Your task to perform on an android device: check the backup settings in the google photos Image 0: 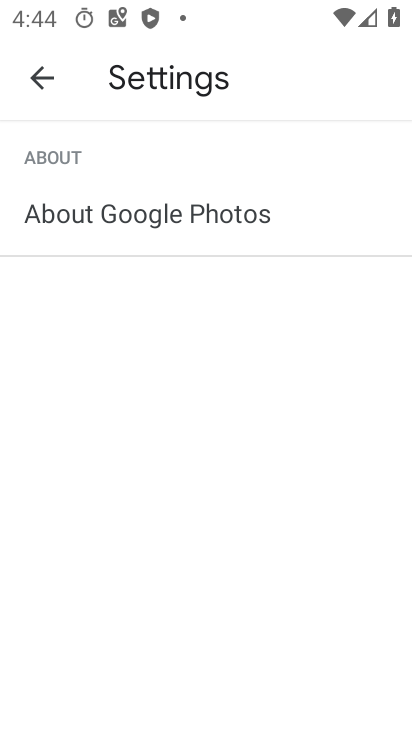
Step 0: press home button
Your task to perform on an android device: check the backup settings in the google photos Image 1: 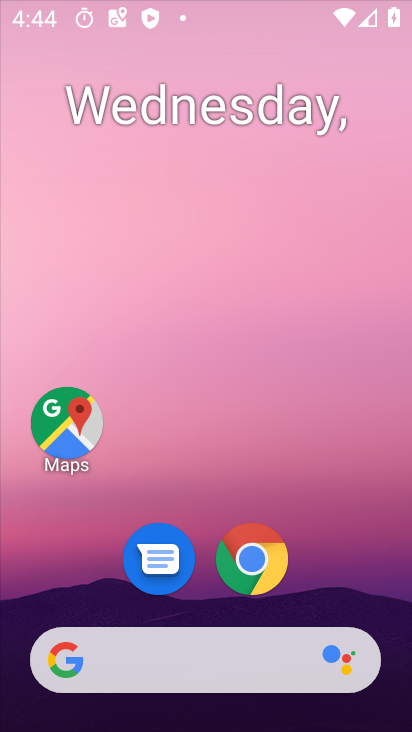
Step 1: drag from (274, 284) to (206, 28)
Your task to perform on an android device: check the backup settings in the google photos Image 2: 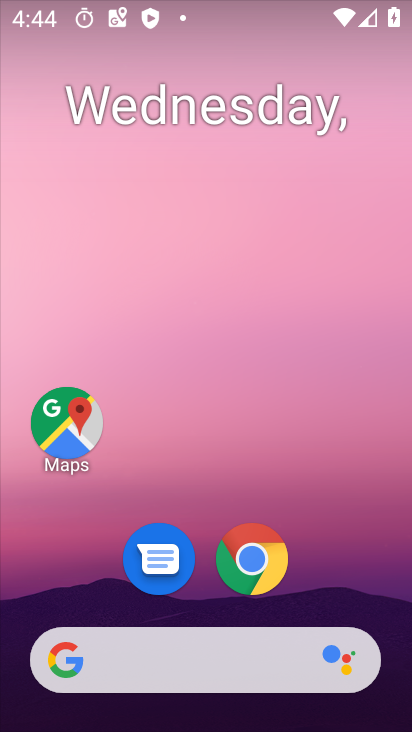
Step 2: drag from (340, 564) to (251, 24)
Your task to perform on an android device: check the backup settings in the google photos Image 3: 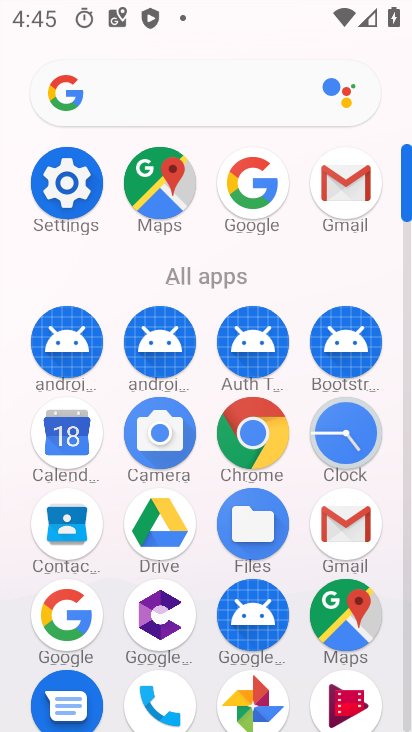
Step 3: click (250, 698)
Your task to perform on an android device: check the backup settings in the google photos Image 4: 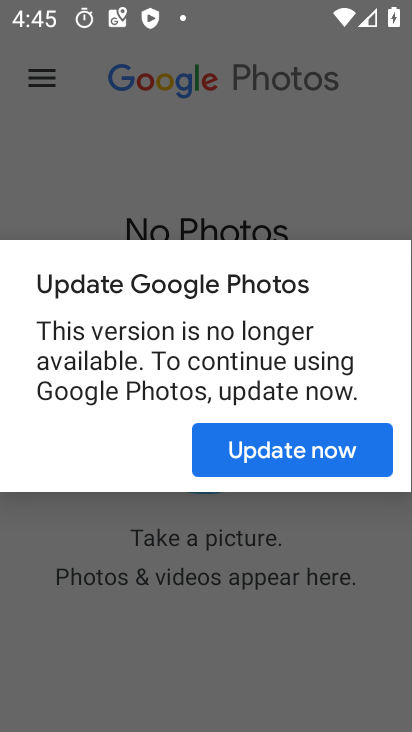
Step 4: click (249, 452)
Your task to perform on an android device: check the backup settings in the google photos Image 5: 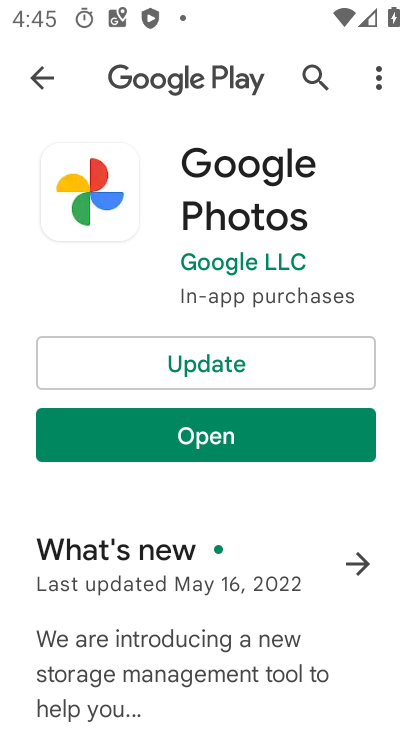
Step 5: click (211, 357)
Your task to perform on an android device: check the backup settings in the google photos Image 6: 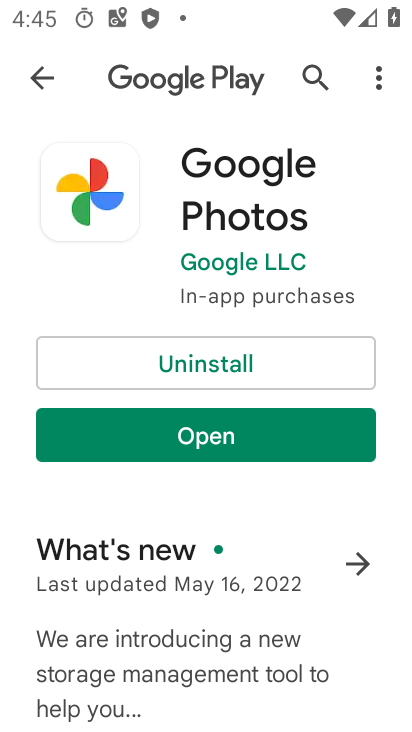
Step 6: click (240, 452)
Your task to perform on an android device: check the backup settings in the google photos Image 7: 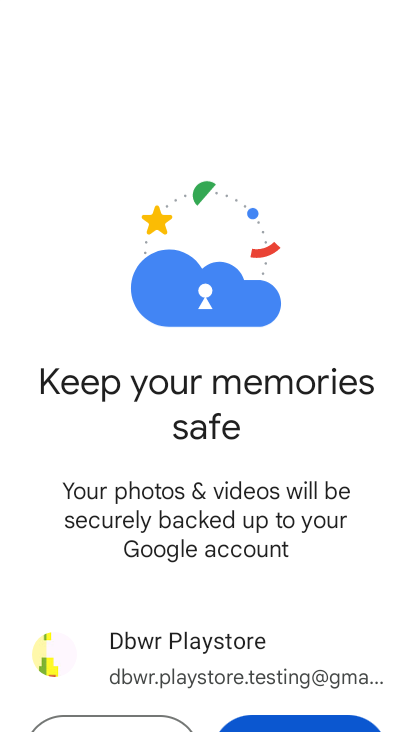
Step 7: click (145, 718)
Your task to perform on an android device: check the backup settings in the google photos Image 8: 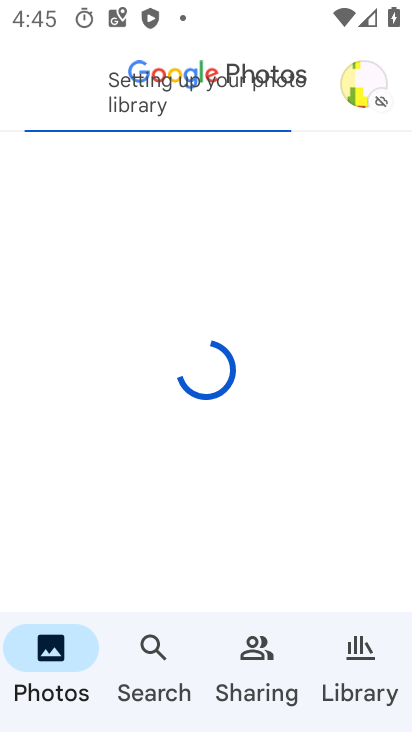
Step 8: click (354, 88)
Your task to perform on an android device: check the backup settings in the google photos Image 9: 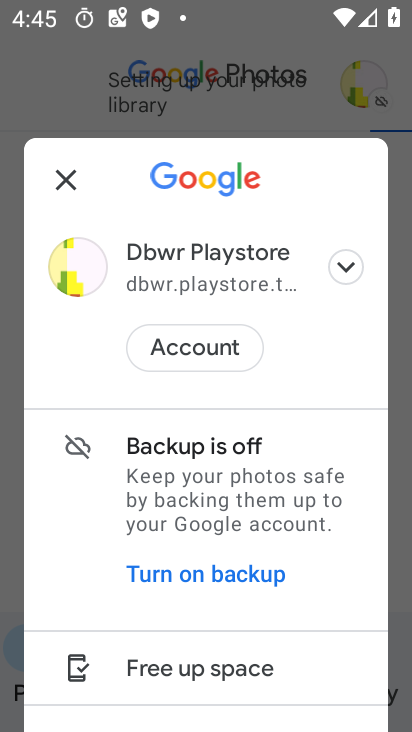
Step 9: drag from (257, 555) to (283, 204)
Your task to perform on an android device: check the backup settings in the google photos Image 10: 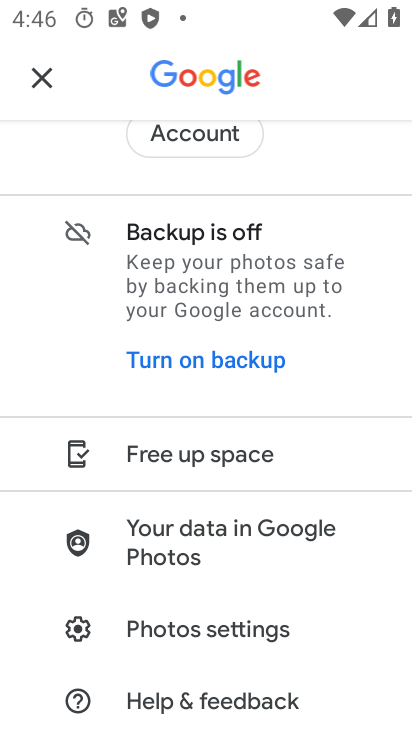
Step 10: click (252, 630)
Your task to perform on an android device: check the backup settings in the google photos Image 11: 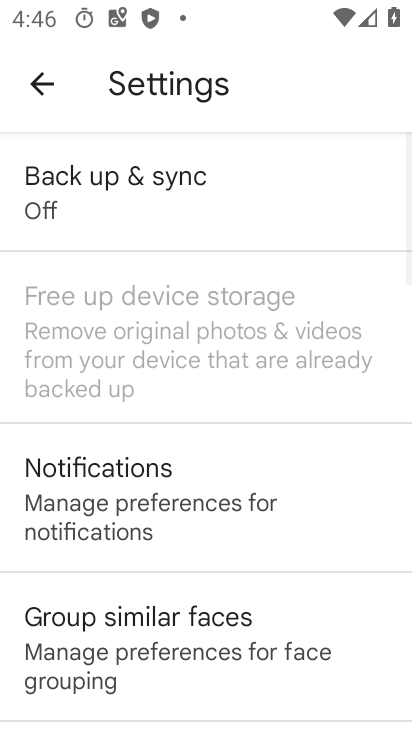
Step 11: click (179, 205)
Your task to perform on an android device: check the backup settings in the google photos Image 12: 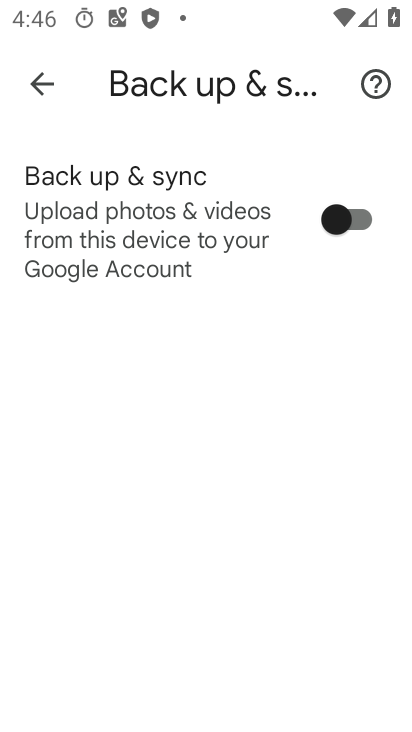
Step 12: task complete